Your task to perform on an android device: Open privacy settings Image 0: 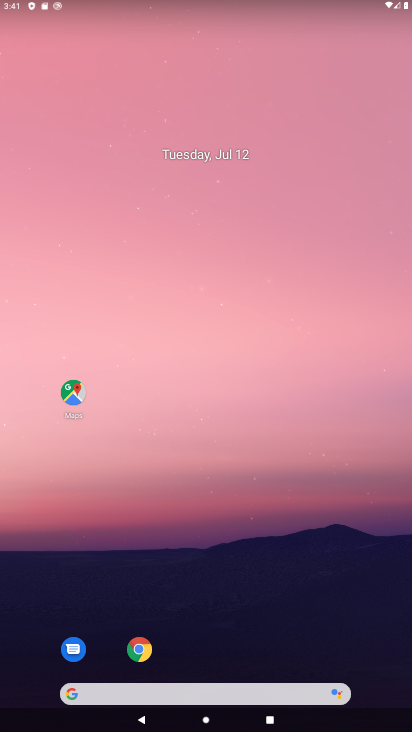
Step 0: press home button
Your task to perform on an android device: Open privacy settings Image 1: 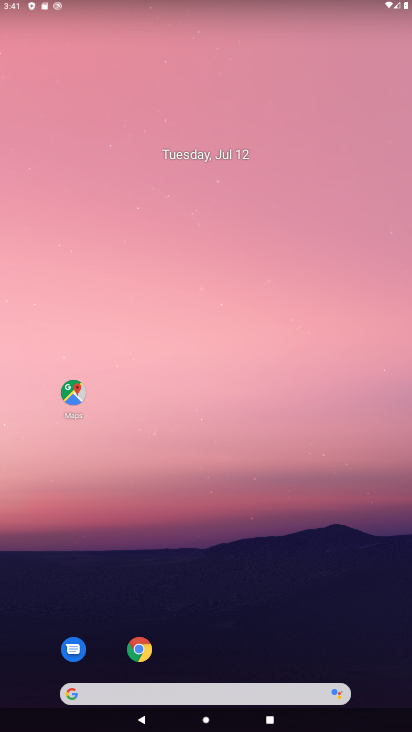
Step 1: drag from (218, 642) to (208, 0)
Your task to perform on an android device: Open privacy settings Image 2: 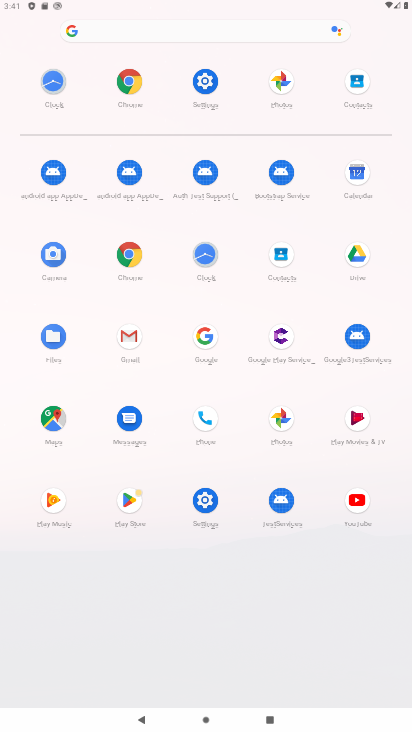
Step 2: click (202, 75)
Your task to perform on an android device: Open privacy settings Image 3: 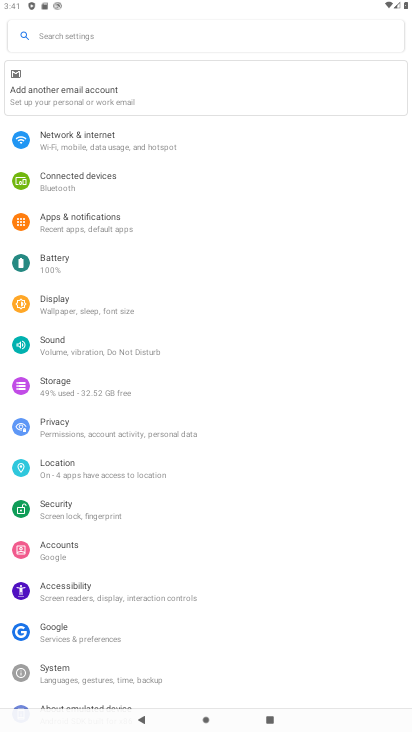
Step 3: click (75, 423)
Your task to perform on an android device: Open privacy settings Image 4: 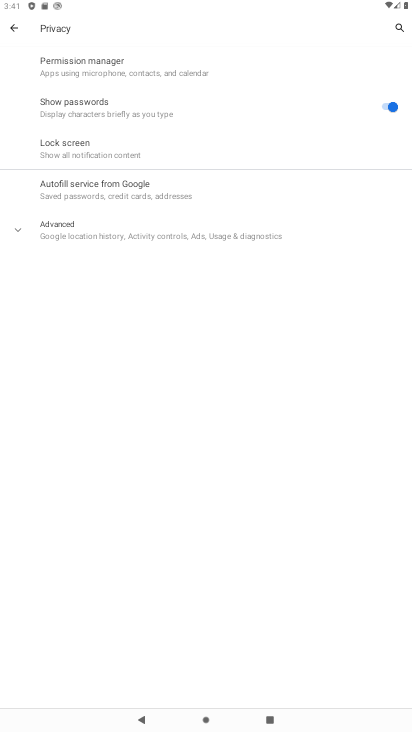
Step 4: click (14, 231)
Your task to perform on an android device: Open privacy settings Image 5: 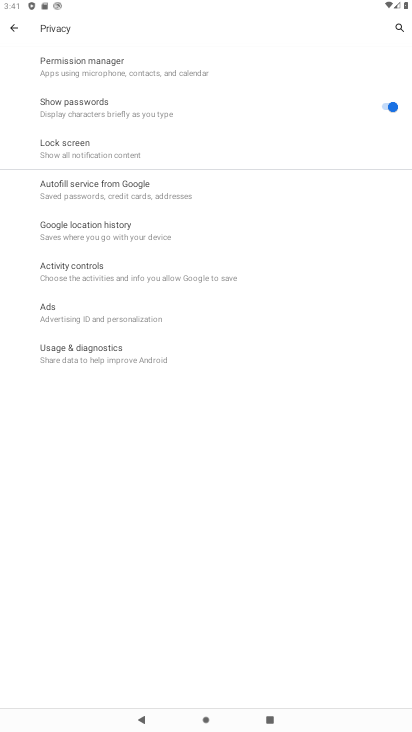
Step 5: task complete